Your task to perform on an android device: Open calendar and show me the second week of next month Image 0: 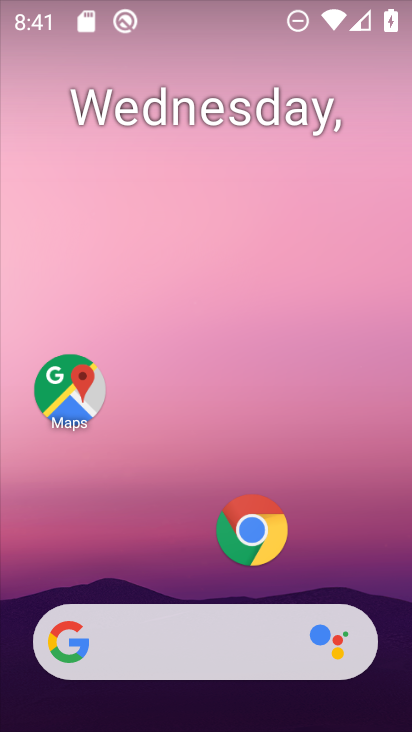
Step 0: drag from (173, 577) to (288, 98)
Your task to perform on an android device: Open calendar and show me the second week of next month Image 1: 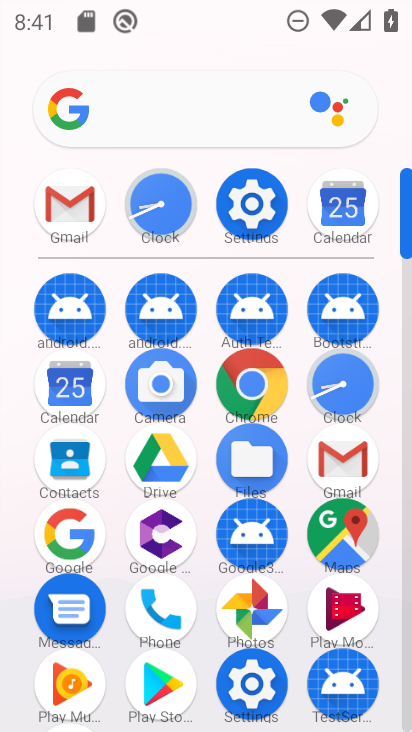
Step 1: click (42, 390)
Your task to perform on an android device: Open calendar and show me the second week of next month Image 2: 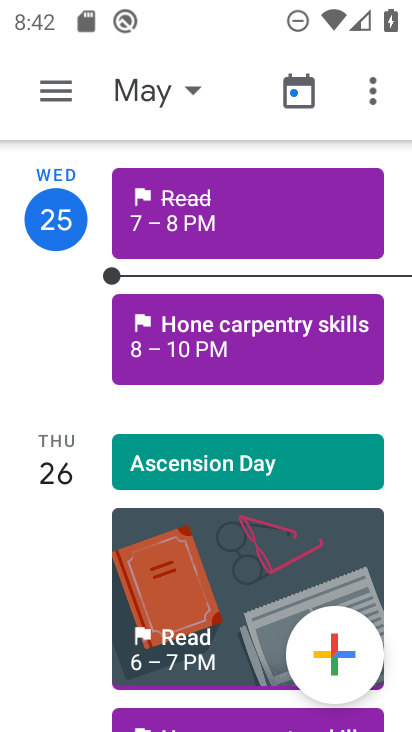
Step 2: click (182, 92)
Your task to perform on an android device: Open calendar and show me the second week of next month Image 3: 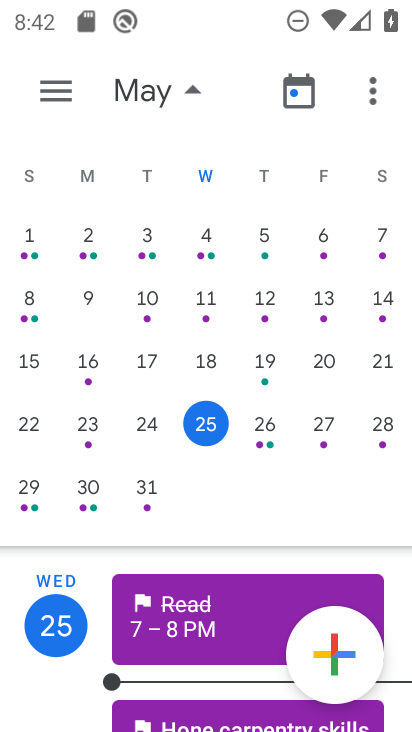
Step 3: drag from (378, 325) to (3, 290)
Your task to perform on an android device: Open calendar and show me the second week of next month Image 4: 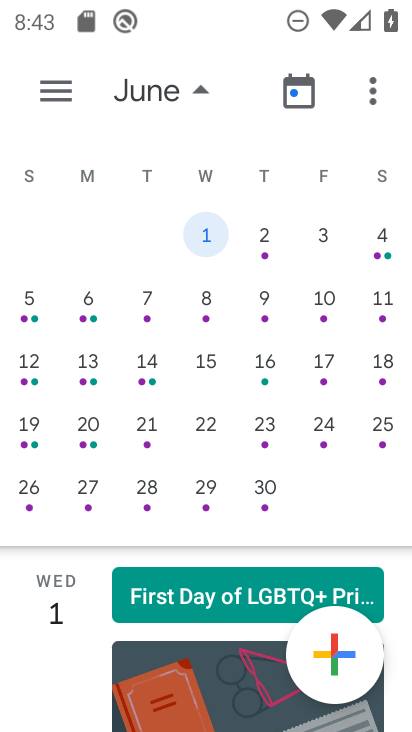
Step 4: click (89, 302)
Your task to perform on an android device: Open calendar and show me the second week of next month Image 5: 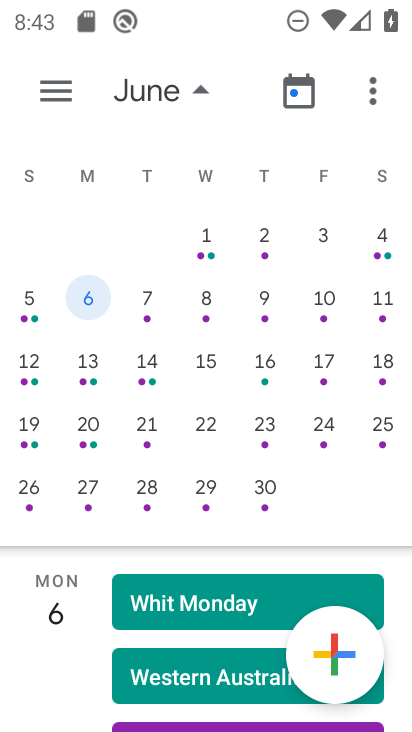
Step 5: task complete